Your task to perform on an android device: Go to accessibility settings Image 0: 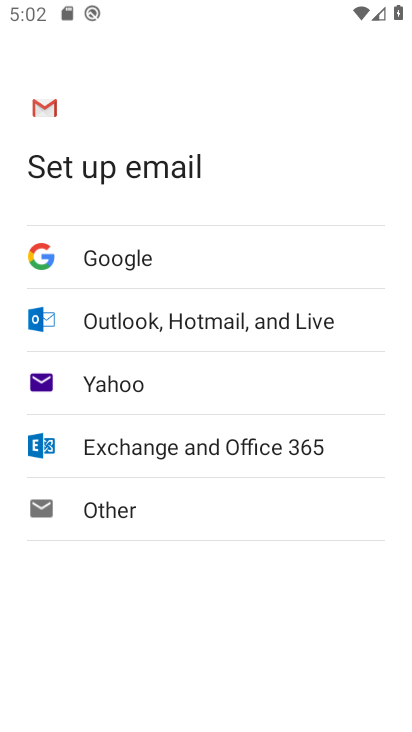
Step 0: press home button
Your task to perform on an android device: Go to accessibility settings Image 1: 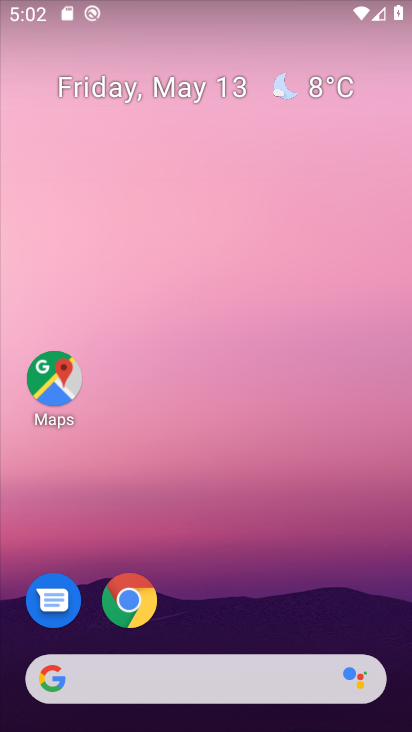
Step 1: drag from (331, 587) to (295, 275)
Your task to perform on an android device: Go to accessibility settings Image 2: 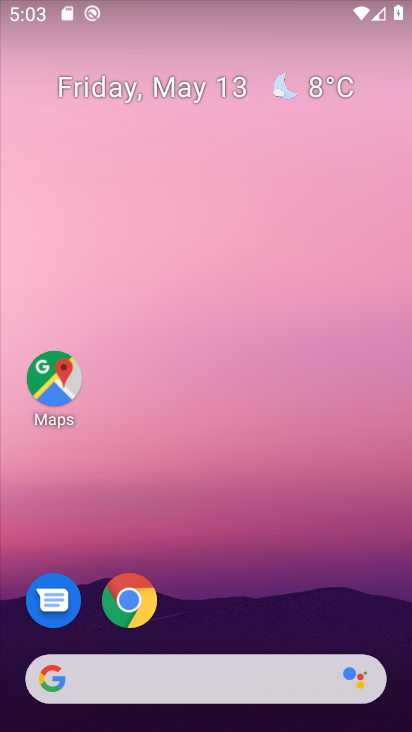
Step 2: drag from (282, 518) to (277, 203)
Your task to perform on an android device: Go to accessibility settings Image 3: 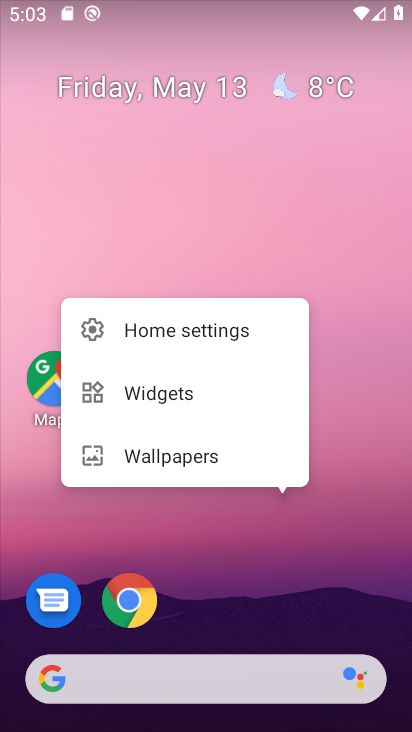
Step 3: click (308, 558)
Your task to perform on an android device: Go to accessibility settings Image 4: 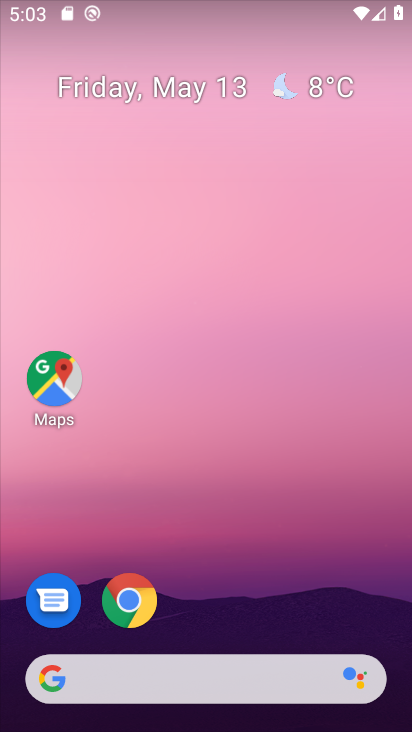
Step 4: drag from (308, 558) to (255, 0)
Your task to perform on an android device: Go to accessibility settings Image 5: 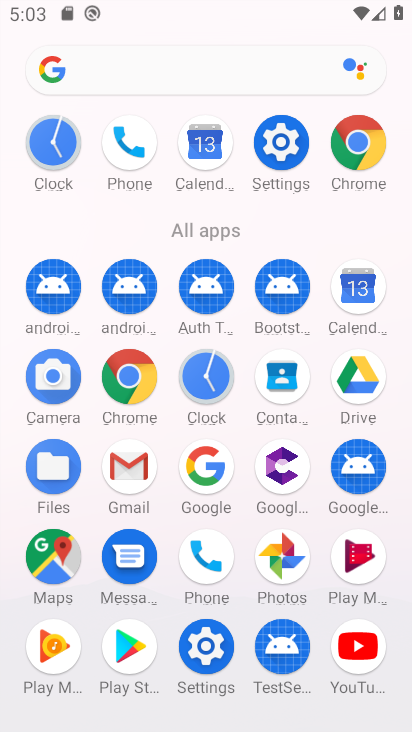
Step 5: click (287, 194)
Your task to perform on an android device: Go to accessibility settings Image 6: 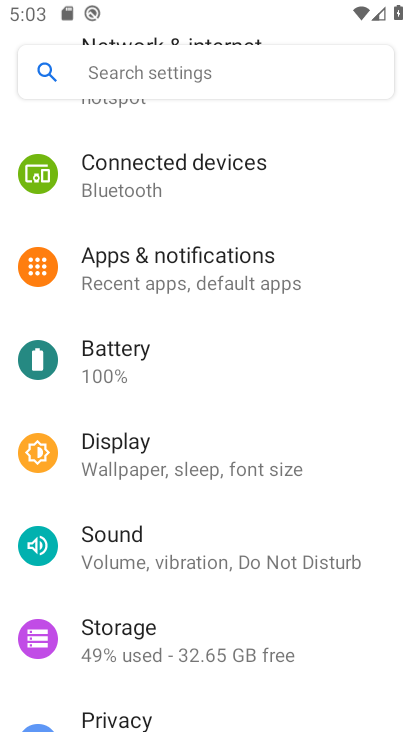
Step 6: drag from (265, 617) to (236, 321)
Your task to perform on an android device: Go to accessibility settings Image 7: 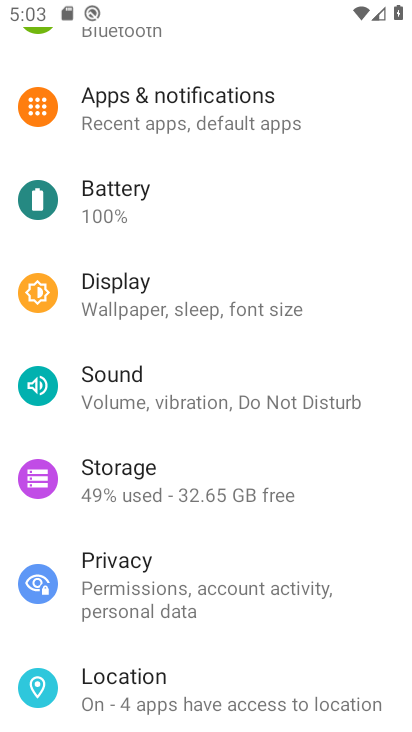
Step 7: drag from (251, 554) to (241, 386)
Your task to perform on an android device: Go to accessibility settings Image 8: 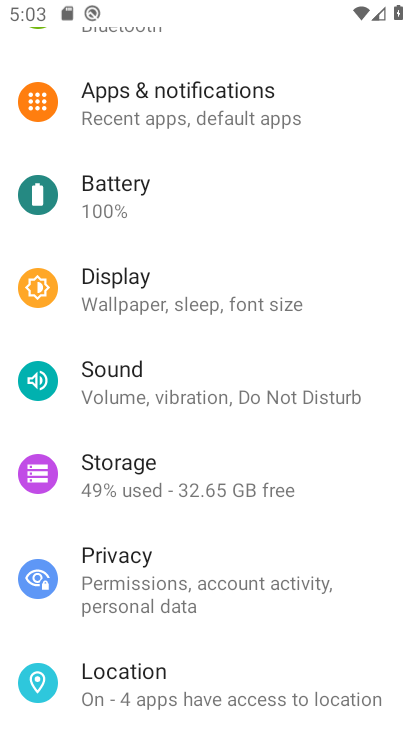
Step 8: drag from (201, 537) to (195, 445)
Your task to perform on an android device: Go to accessibility settings Image 9: 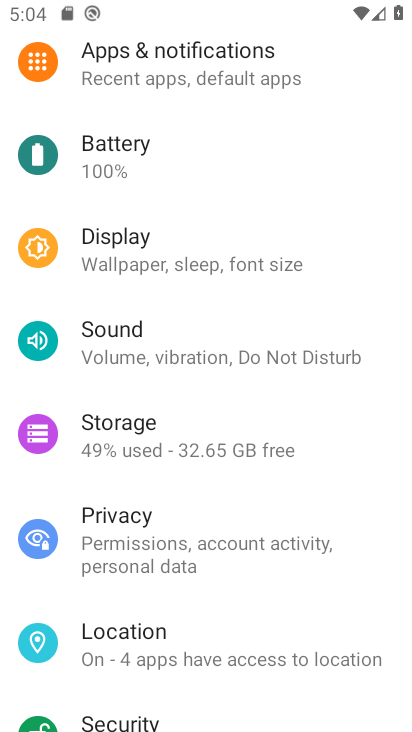
Step 9: drag from (171, 630) to (133, 453)
Your task to perform on an android device: Go to accessibility settings Image 10: 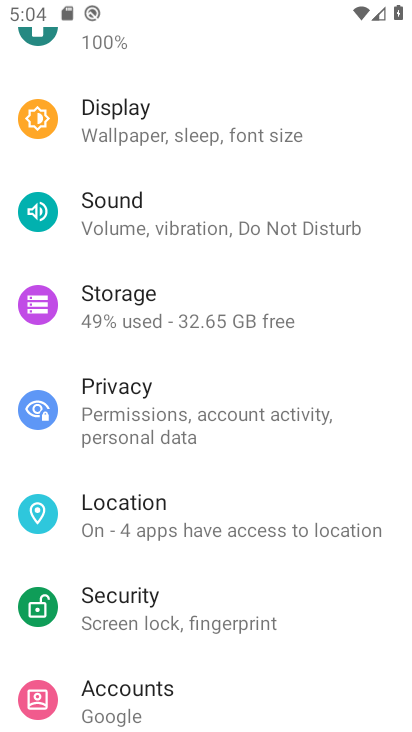
Step 10: drag from (126, 629) to (121, 417)
Your task to perform on an android device: Go to accessibility settings Image 11: 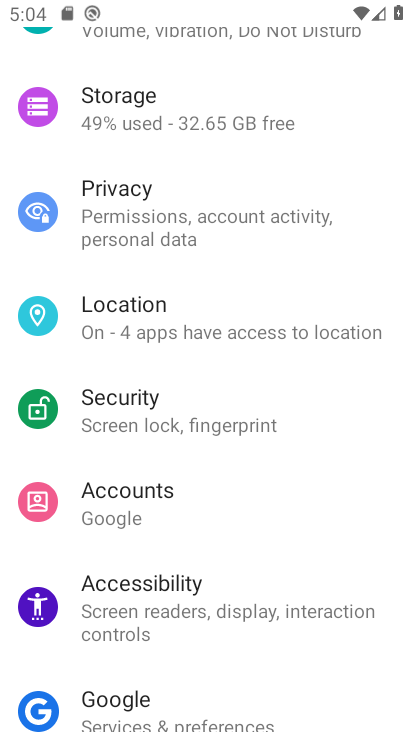
Step 11: click (147, 584)
Your task to perform on an android device: Go to accessibility settings Image 12: 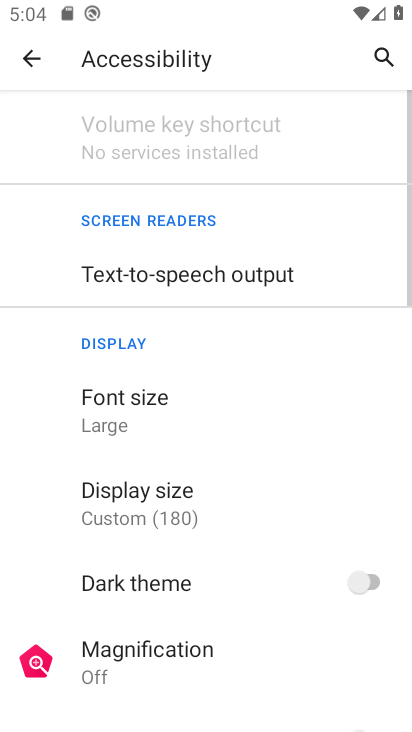
Step 12: task complete